Your task to perform on an android device: change text size in settings app Image 0: 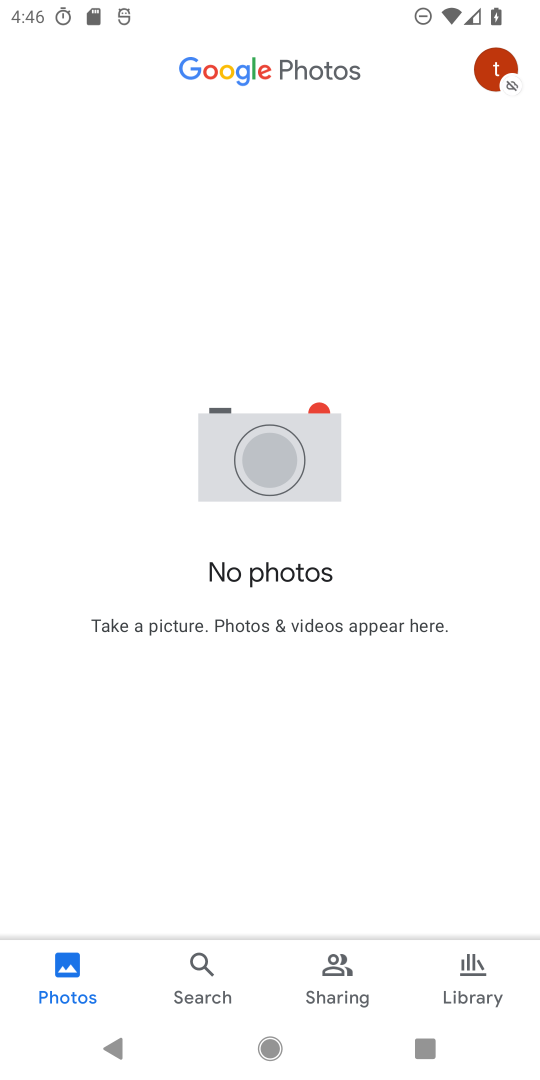
Step 0: press home button
Your task to perform on an android device: change text size in settings app Image 1: 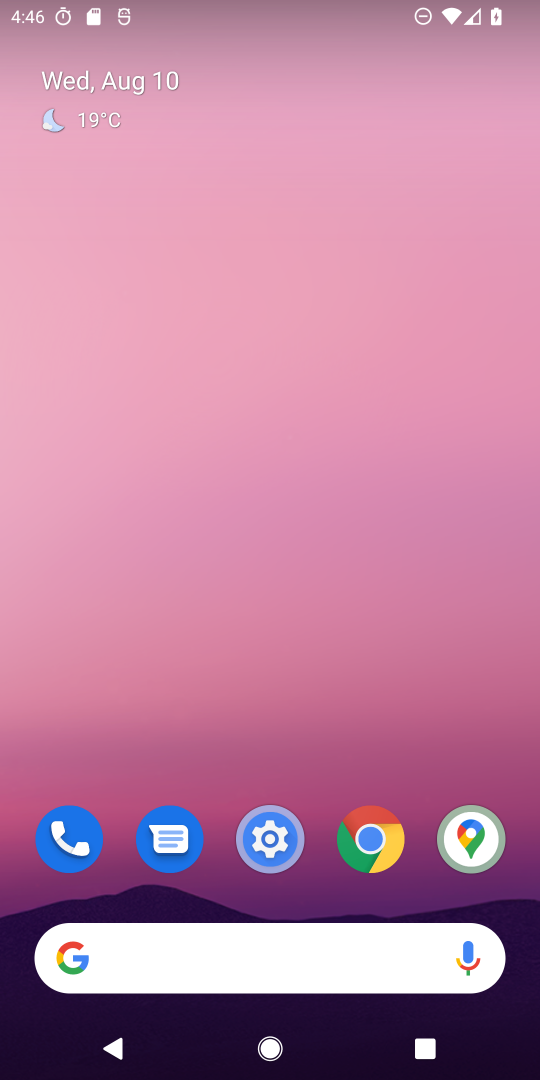
Step 1: click (273, 850)
Your task to perform on an android device: change text size in settings app Image 2: 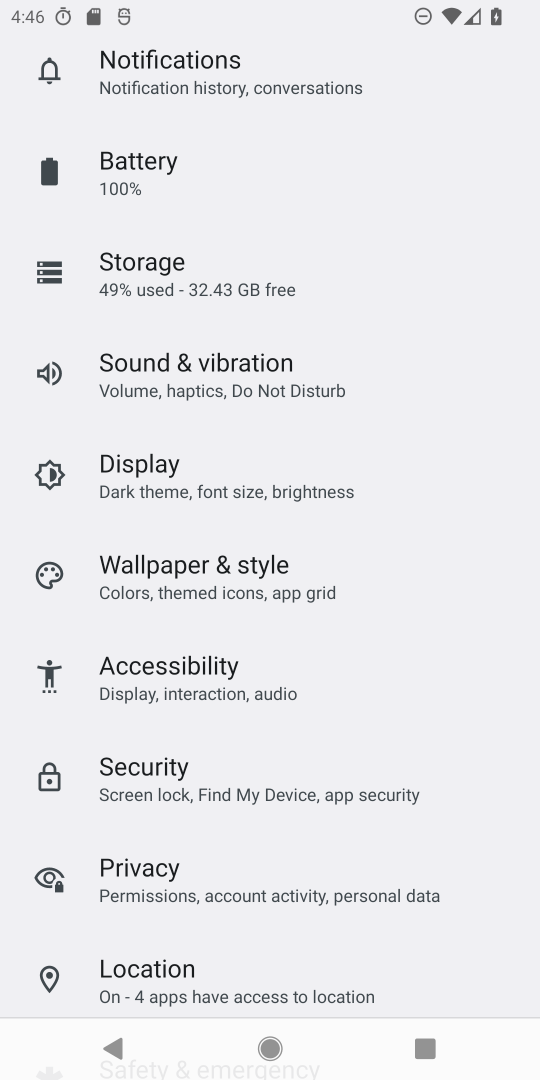
Step 2: click (246, 506)
Your task to perform on an android device: change text size in settings app Image 3: 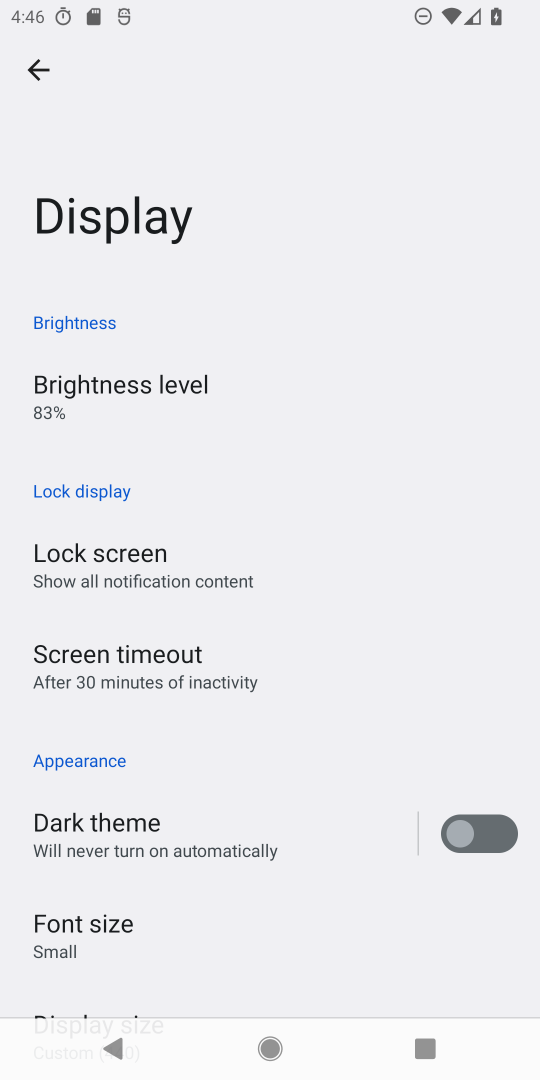
Step 3: click (129, 925)
Your task to perform on an android device: change text size in settings app Image 4: 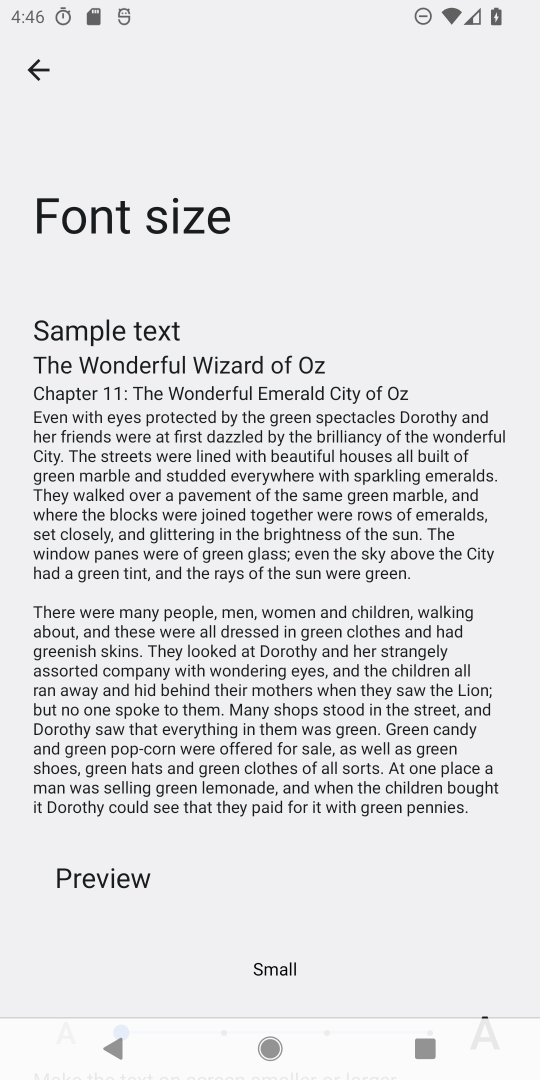
Step 4: drag from (440, 906) to (399, 491)
Your task to perform on an android device: change text size in settings app Image 5: 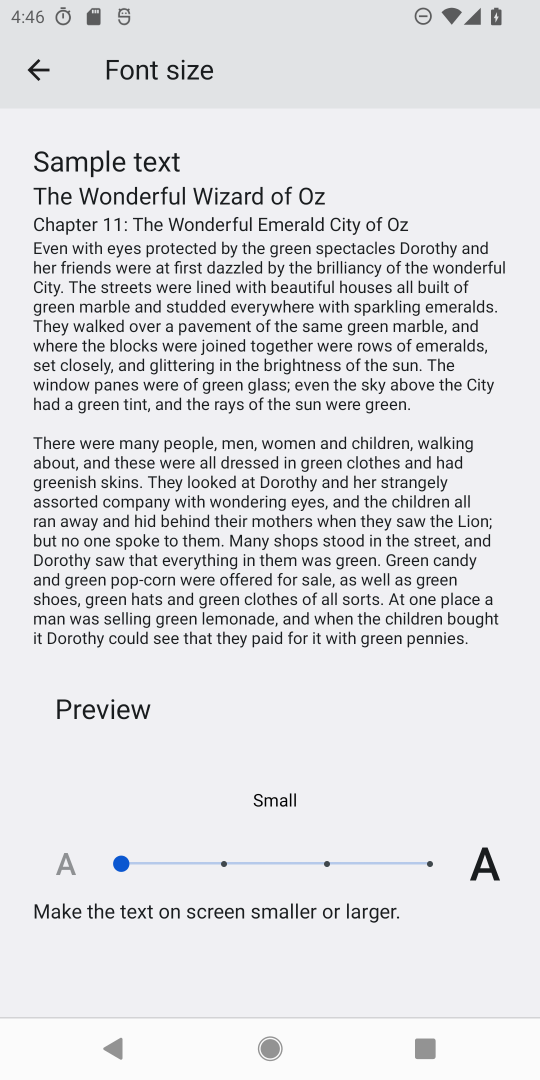
Step 5: click (220, 865)
Your task to perform on an android device: change text size in settings app Image 6: 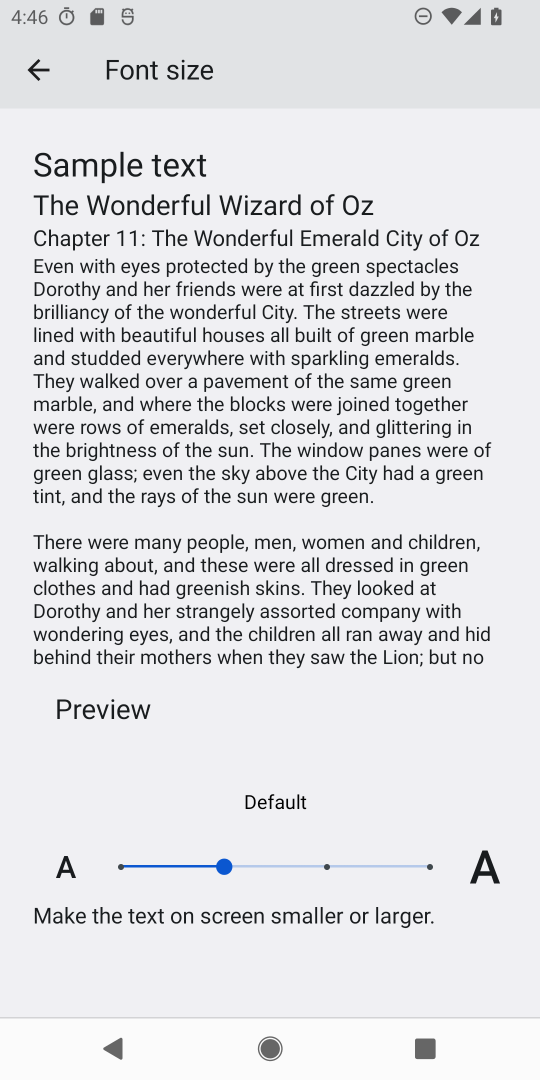
Step 6: task complete